Your task to perform on an android device: Open the calendar and show me this week's events? Image 0: 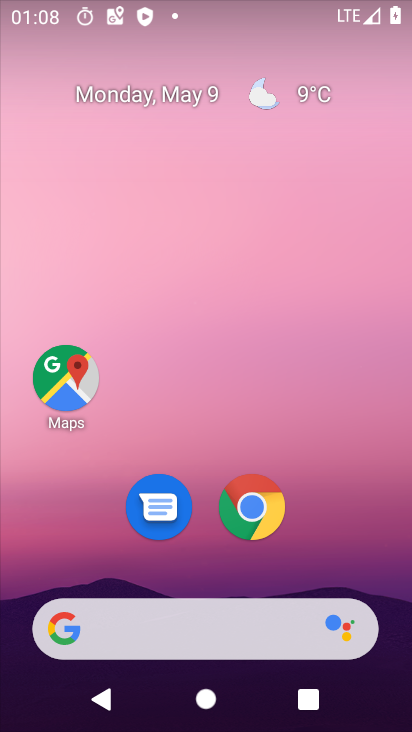
Step 0: drag from (211, 728) to (214, 155)
Your task to perform on an android device: Open the calendar and show me this week's events? Image 1: 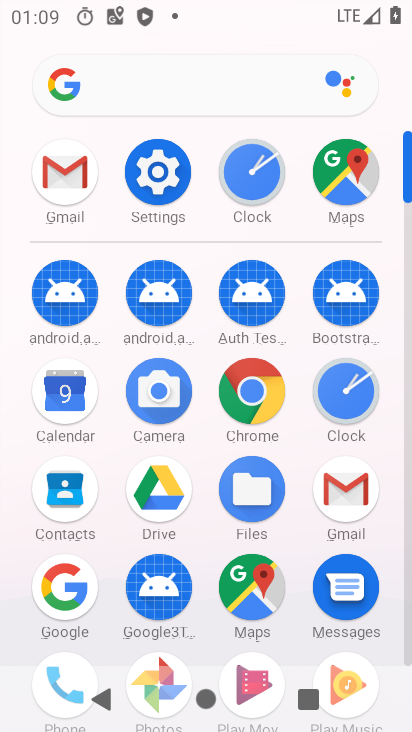
Step 1: click (61, 403)
Your task to perform on an android device: Open the calendar and show me this week's events? Image 2: 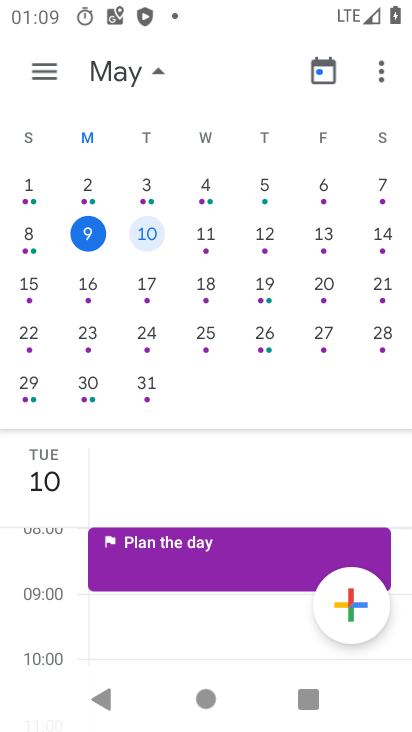
Step 2: click (47, 68)
Your task to perform on an android device: Open the calendar and show me this week's events? Image 3: 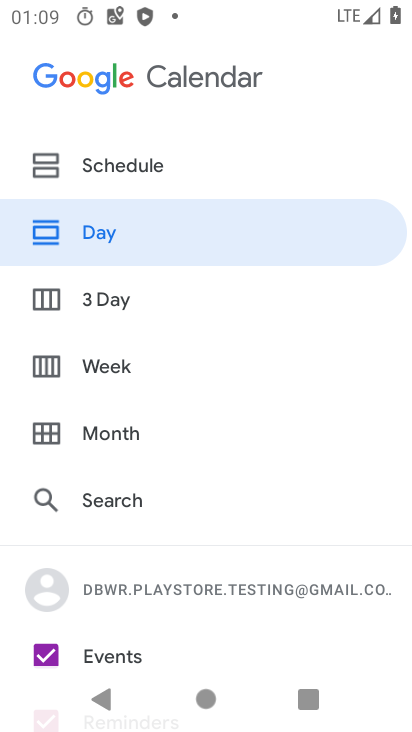
Step 3: drag from (143, 553) to (164, 135)
Your task to perform on an android device: Open the calendar and show me this week's events? Image 4: 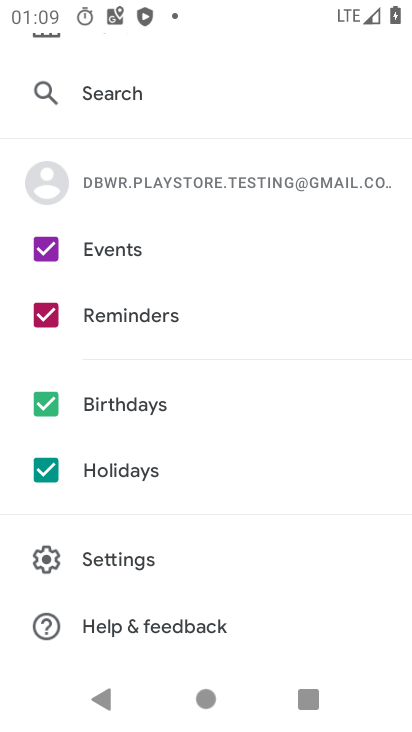
Step 4: click (41, 474)
Your task to perform on an android device: Open the calendar and show me this week's events? Image 5: 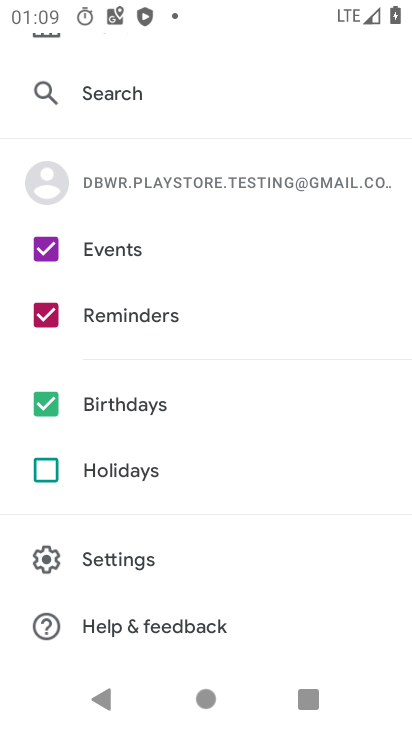
Step 5: click (43, 400)
Your task to perform on an android device: Open the calendar and show me this week's events? Image 6: 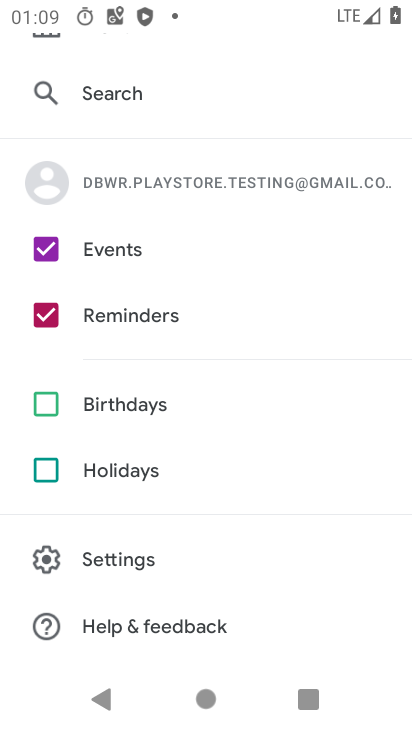
Step 6: click (50, 313)
Your task to perform on an android device: Open the calendar and show me this week's events? Image 7: 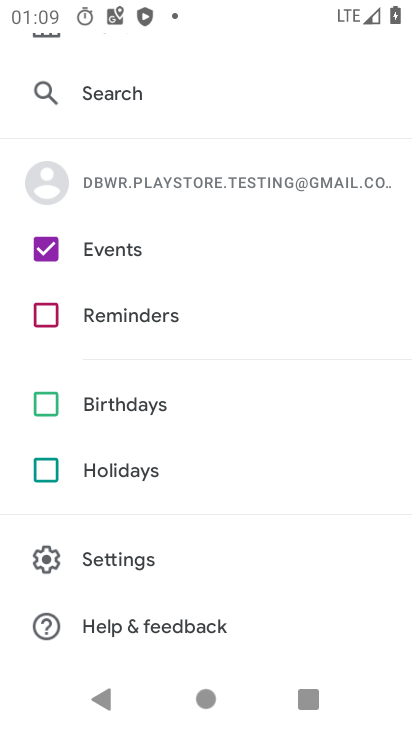
Step 7: drag from (310, 236) to (317, 571)
Your task to perform on an android device: Open the calendar and show me this week's events? Image 8: 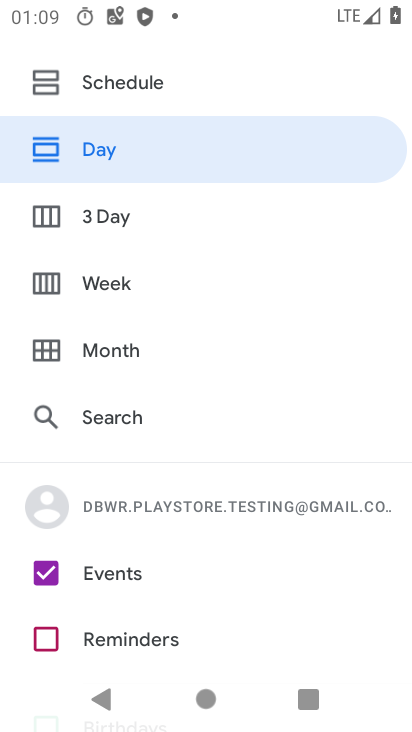
Step 8: click (112, 280)
Your task to perform on an android device: Open the calendar and show me this week's events? Image 9: 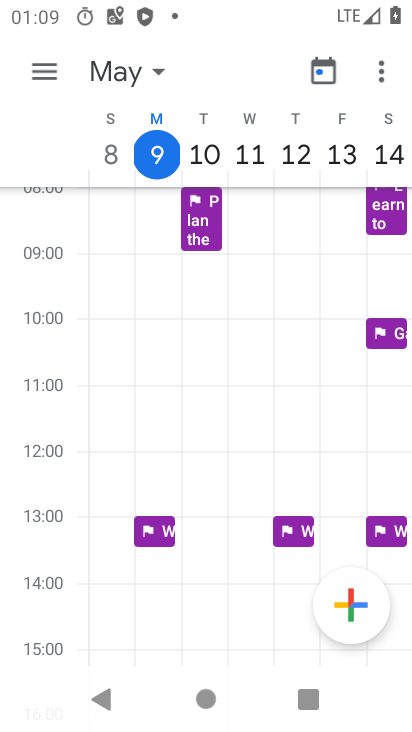
Step 9: task complete